Your task to perform on an android device: turn on javascript in the chrome app Image 0: 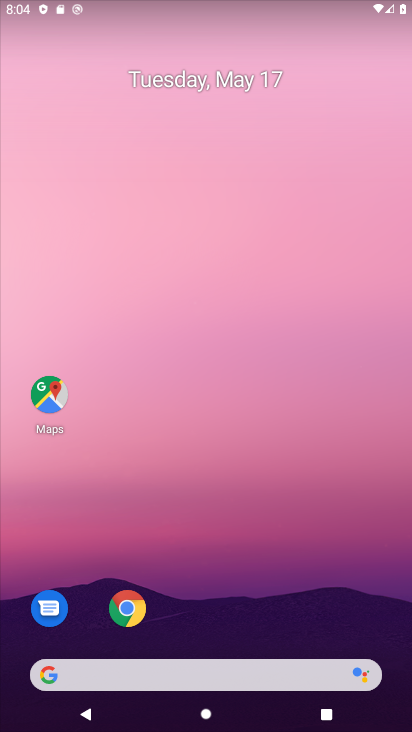
Step 0: drag from (370, 584) to (355, 182)
Your task to perform on an android device: turn on javascript in the chrome app Image 1: 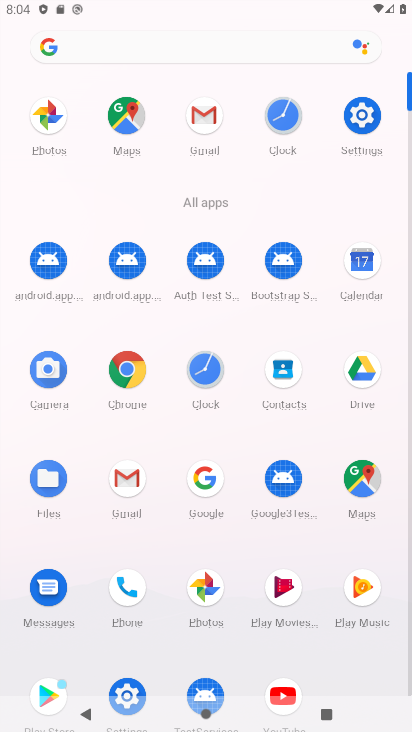
Step 1: click (125, 382)
Your task to perform on an android device: turn on javascript in the chrome app Image 2: 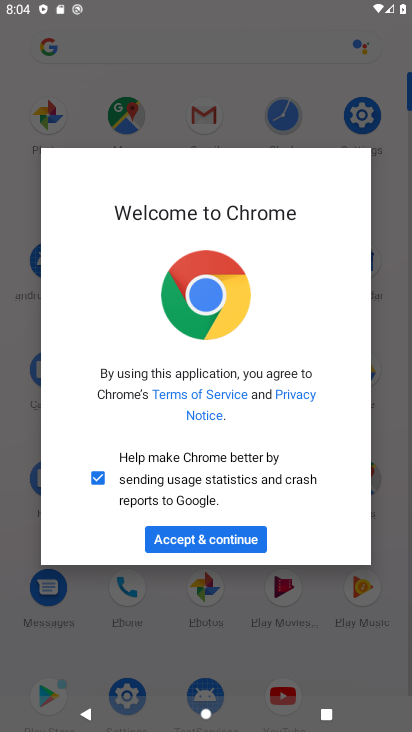
Step 2: click (235, 537)
Your task to perform on an android device: turn on javascript in the chrome app Image 3: 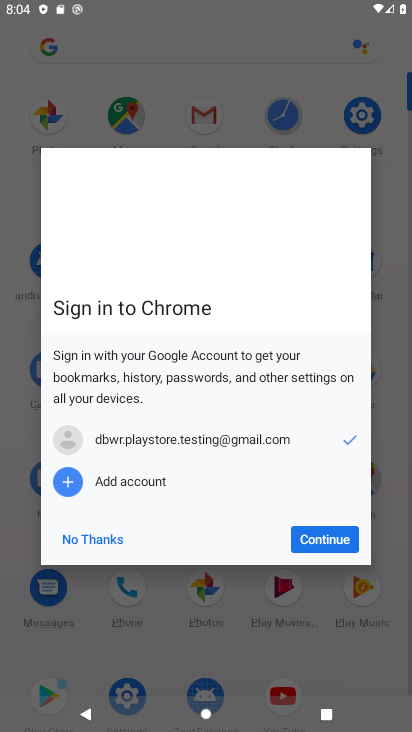
Step 3: click (338, 546)
Your task to perform on an android device: turn on javascript in the chrome app Image 4: 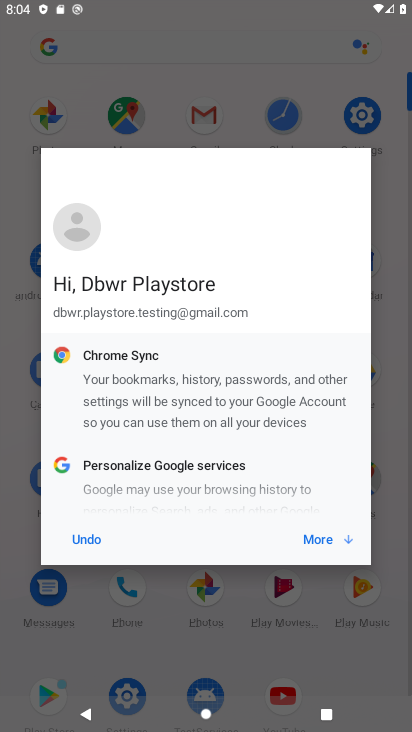
Step 4: click (319, 537)
Your task to perform on an android device: turn on javascript in the chrome app Image 5: 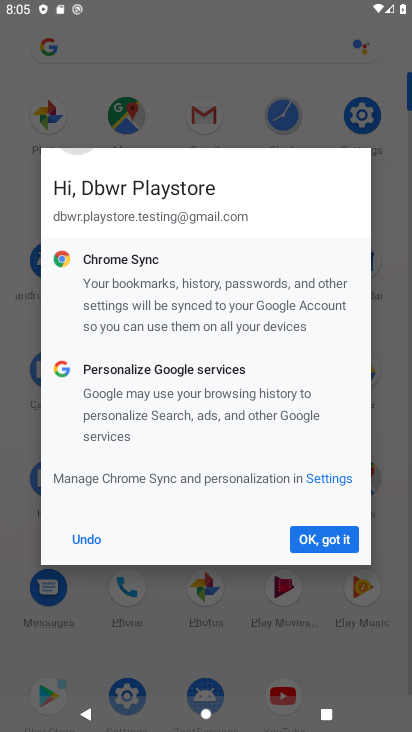
Step 5: click (319, 537)
Your task to perform on an android device: turn on javascript in the chrome app Image 6: 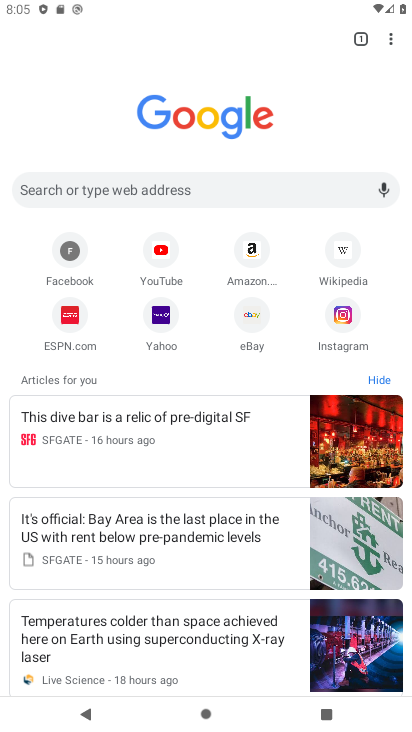
Step 6: click (392, 41)
Your task to perform on an android device: turn on javascript in the chrome app Image 7: 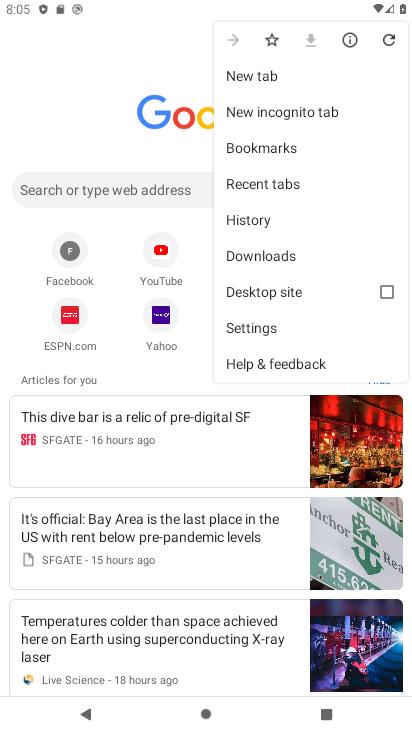
Step 7: click (268, 333)
Your task to perform on an android device: turn on javascript in the chrome app Image 8: 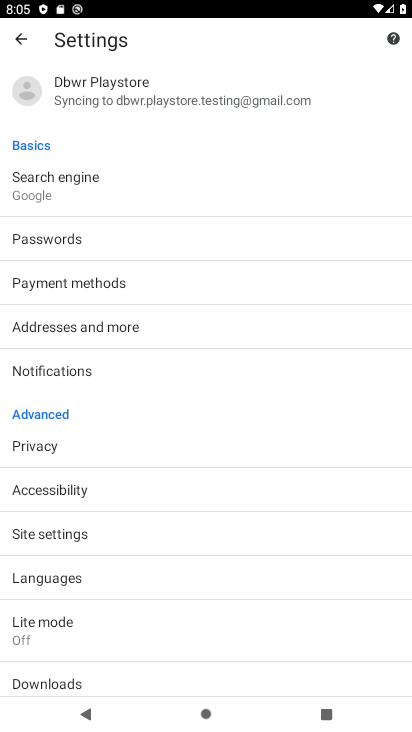
Step 8: drag from (288, 490) to (311, 352)
Your task to perform on an android device: turn on javascript in the chrome app Image 9: 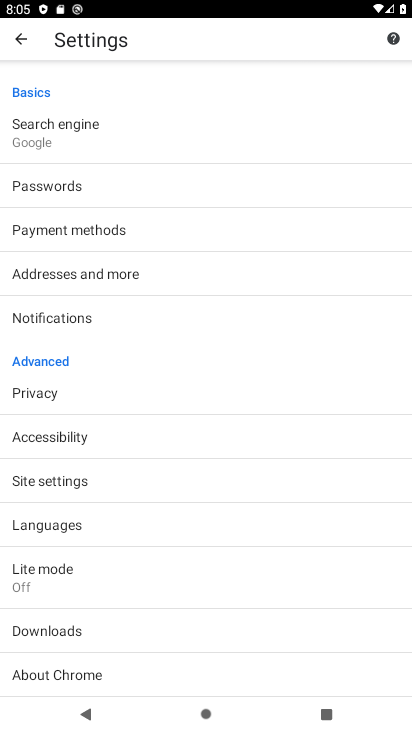
Step 9: drag from (309, 559) to (312, 390)
Your task to perform on an android device: turn on javascript in the chrome app Image 10: 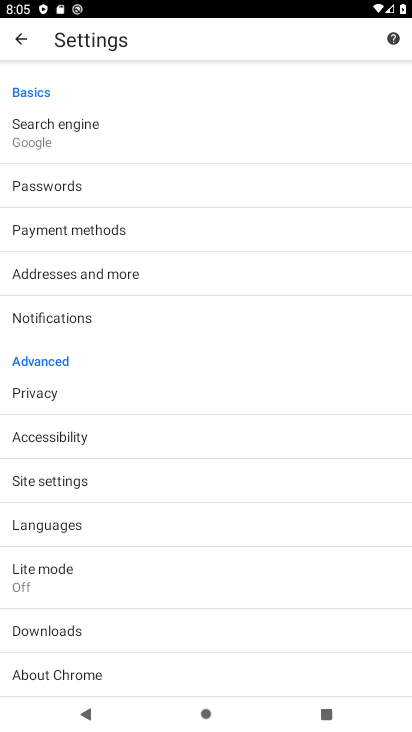
Step 10: click (271, 473)
Your task to perform on an android device: turn on javascript in the chrome app Image 11: 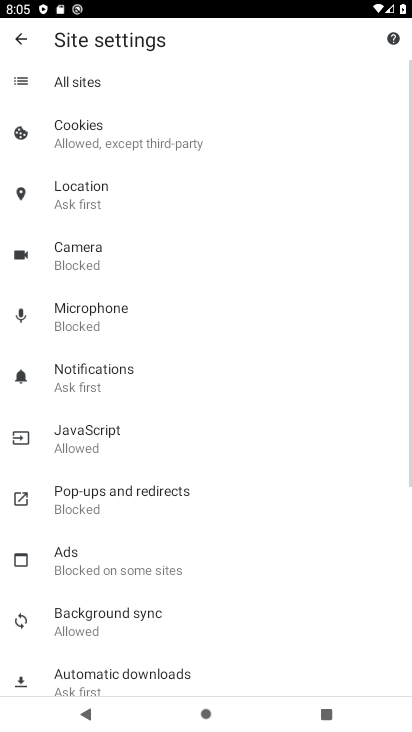
Step 11: drag from (298, 331) to (282, 490)
Your task to perform on an android device: turn on javascript in the chrome app Image 12: 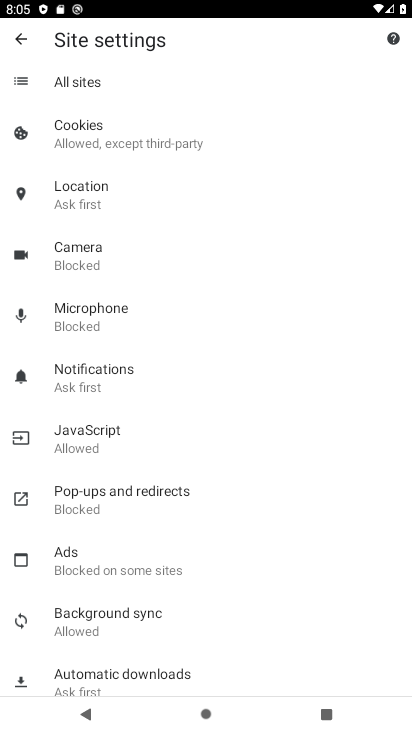
Step 12: drag from (278, 568) to (295, 452)
Your task to perform on an android device: turn on javascript in the chrome app Image 13: 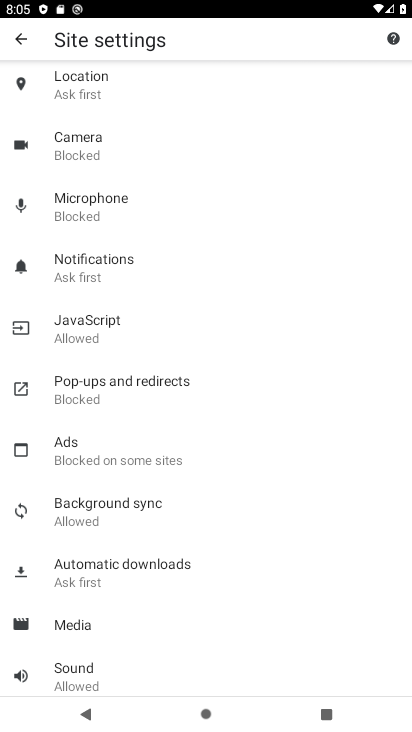
Step 13: drag from (286, 612) to (285, 481)
Your task to perform on an android device: turn on javascript in the chrome app Image 14: 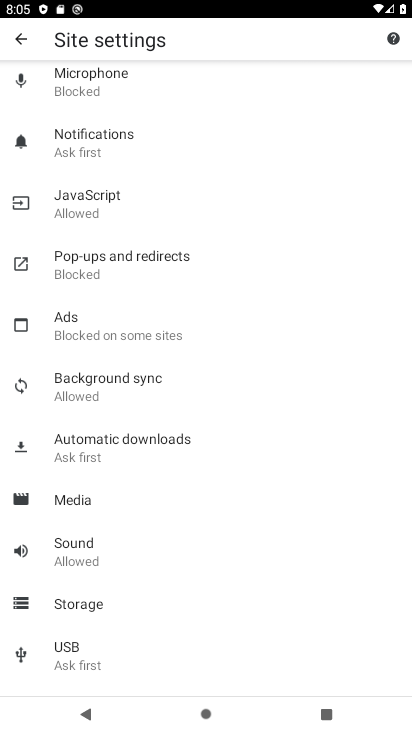
Step 14: drag from (262, 610) to (267, 489)
Your task to perform on an android device: turn on javascript in the chrome app Image 15: 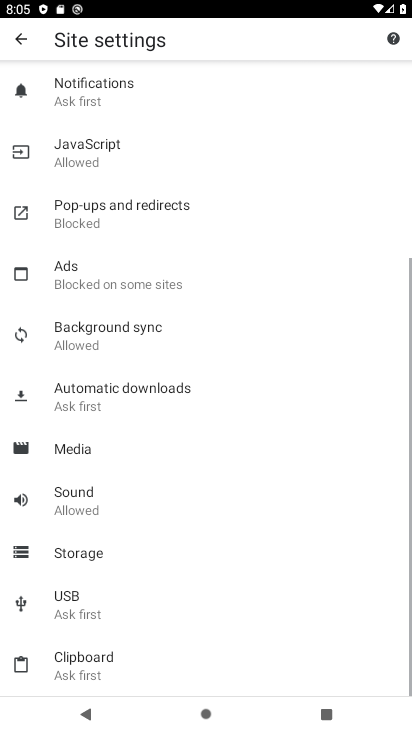
Step 15: drag from (262, 638) to (263, 533)
Your task to perform on an android device: turn on javascript in the chrome app Image 16: 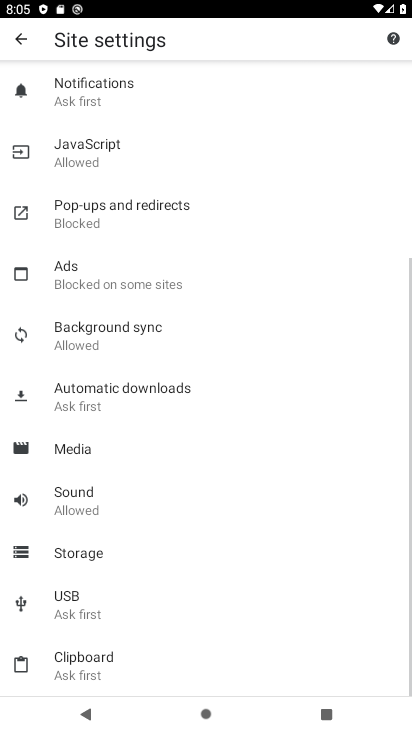
Step 16: drag from (286, 414) to (268, 530)
Your task to perform on an android device: turn on javascript in the chrome app Image 17: 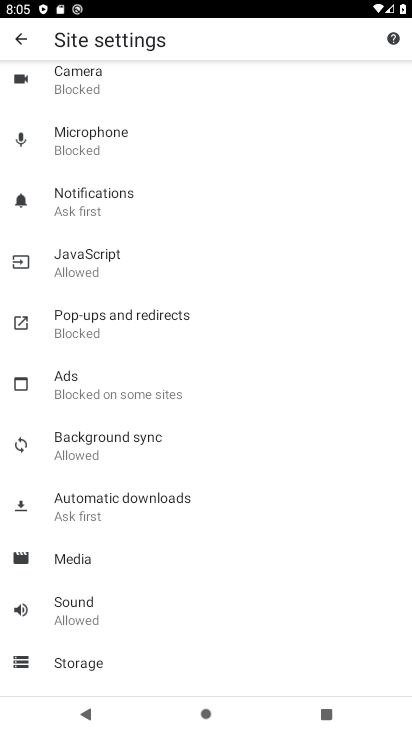
Step 17: drag from (277, 389) to (278, 489)
Your task to perform on an android device: turn on javascript in the chrome app Image 18: 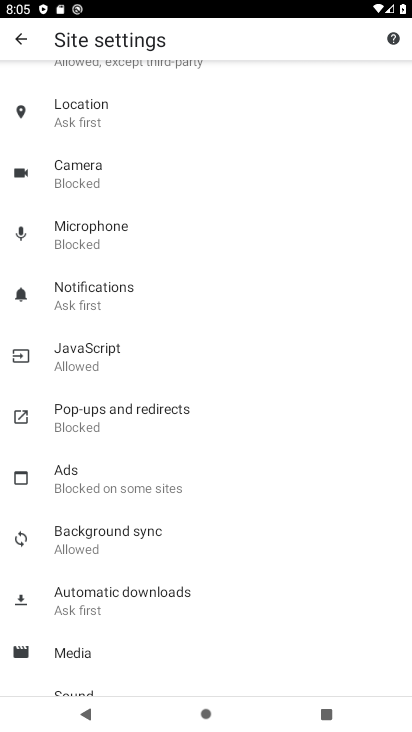
Step 18: drag from (294, 361) to (283, 451)
Your task to perform on an android device: turn on javascript in the chrome app Image 19: 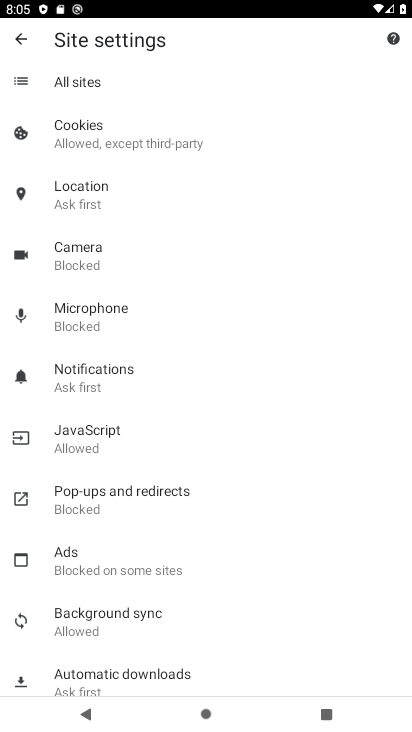
Step 19: click (230, 443)
Your task to perform on an android device: turn on javascript in the chrome app Image 20: 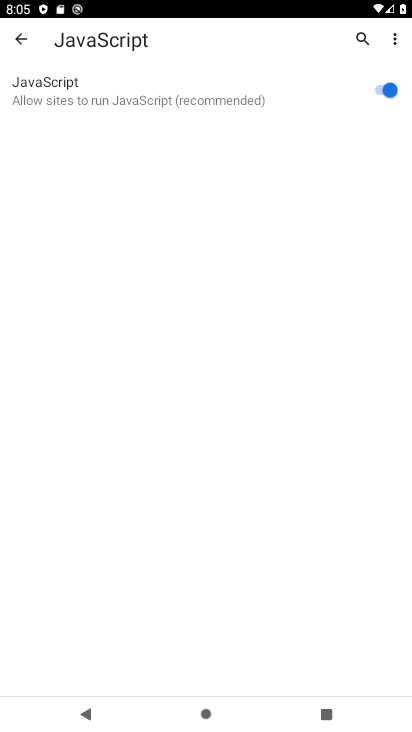
Step 20: task complete